Your task to perform on an android device: Is it going to rain today? Image 0: 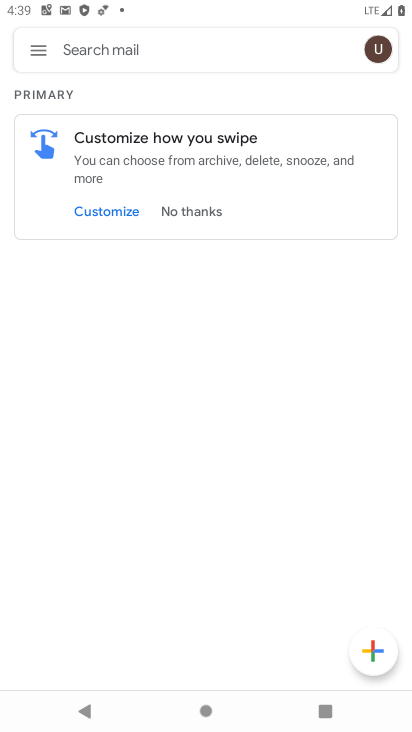
Step 0: press home button
Your task to perform on an android device: Is it going to rain today? Image 1: 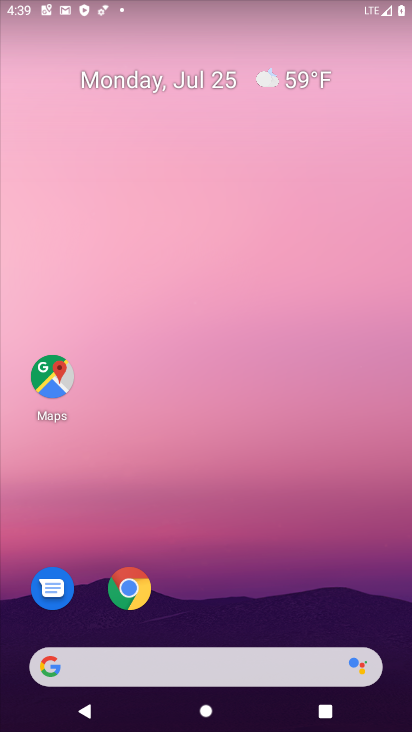
Step 1: drag from (320, 539) to (312, 102)
Your task to perform on an android device: Is it going to rain today? Image 2: 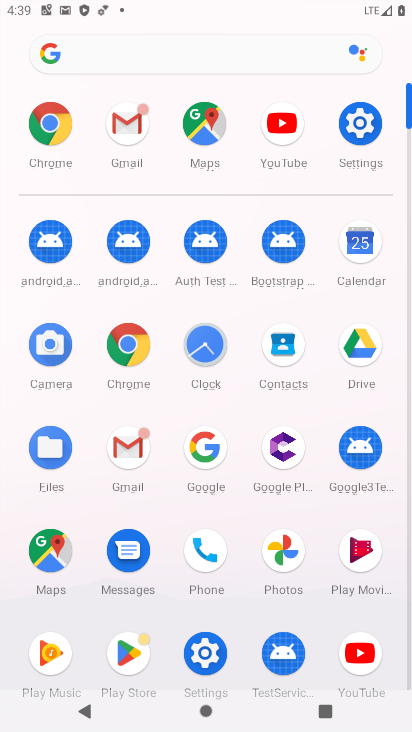
Step 2: click (116, 351)
Your task to perform on an android device: Is it going to rain today? Image 3: 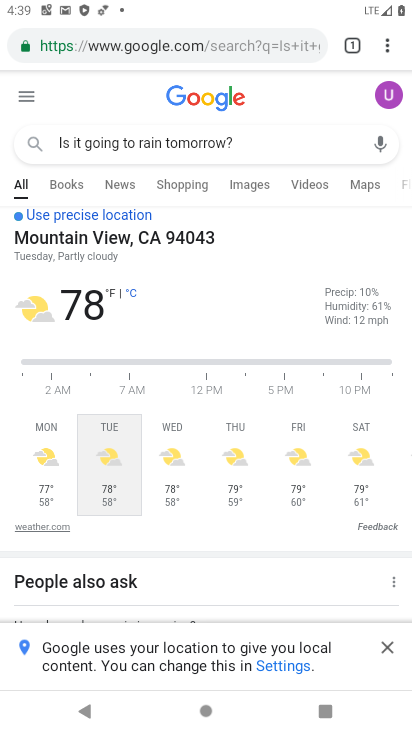
Step 3: click (216, 53)
Your task to perform on an android device: Is it going to rain today? Image 4: 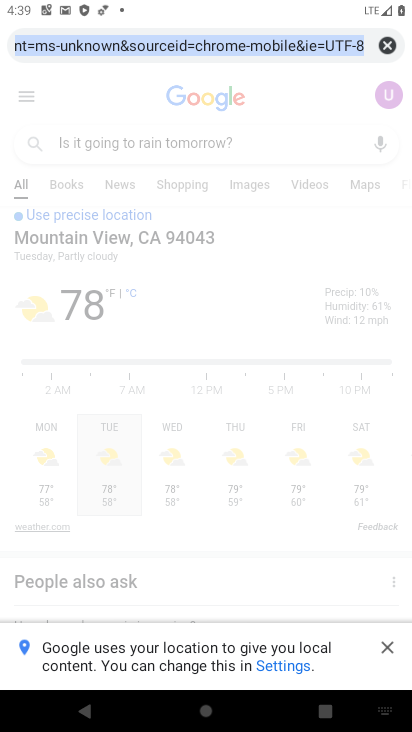
Step 4: click (379, 45)
Your task to perform on an android device: Is it going to rain today? Image 5: 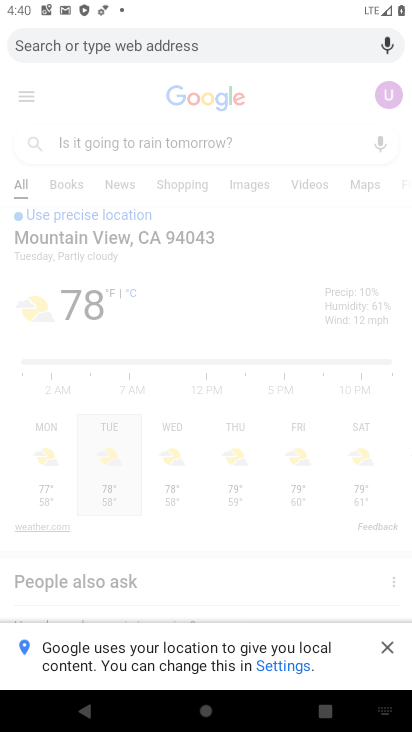
Step 5: type "Is it going to rain today?"
Your task to perform on an android device: Is it going to rain today? Image 6: 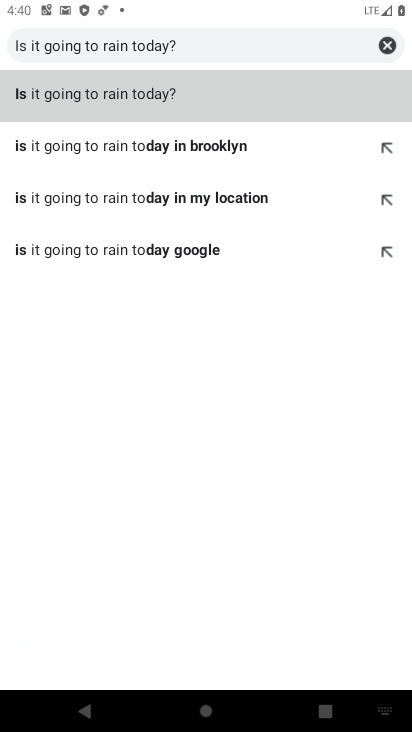
Step 6: click (122, 86)
Your task to perform on an android device: Is it going to rain today? Image 7: 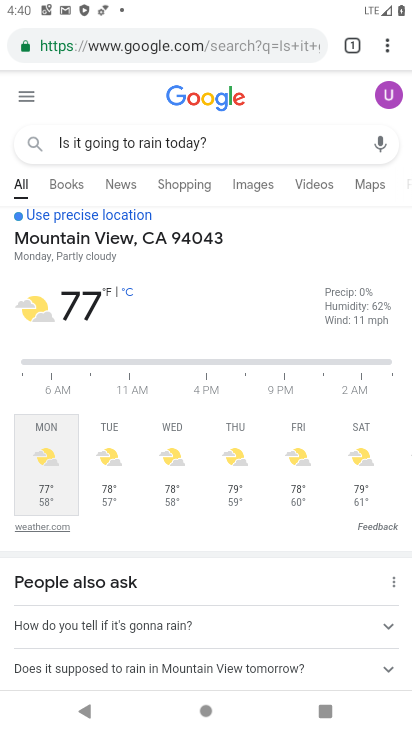
Step 7: task complete